Your task to perform on an android device: manage bookmarks in the chrome app Image 0: 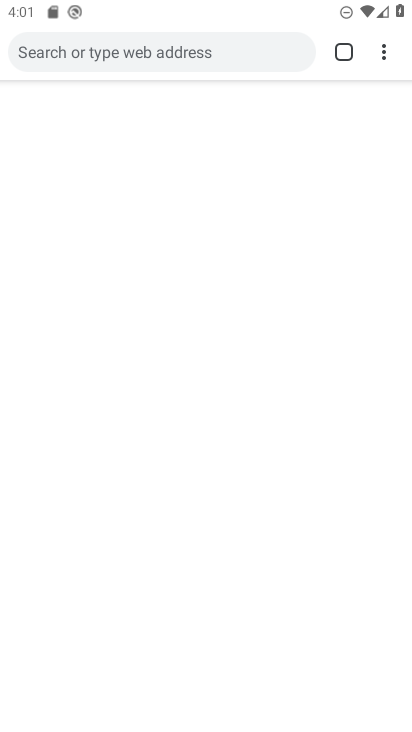
Step 0: drag from (263, 119) to (295, 158)
Your task to perform on an android device: manage bookmarks in the chrome app Image 1: 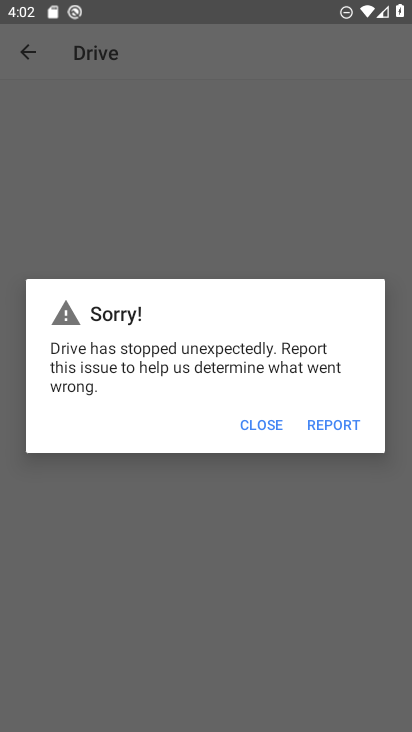
Step 1: press home button
Your task to perform on an android device: manage bookmarks in the chrome app Image 2: 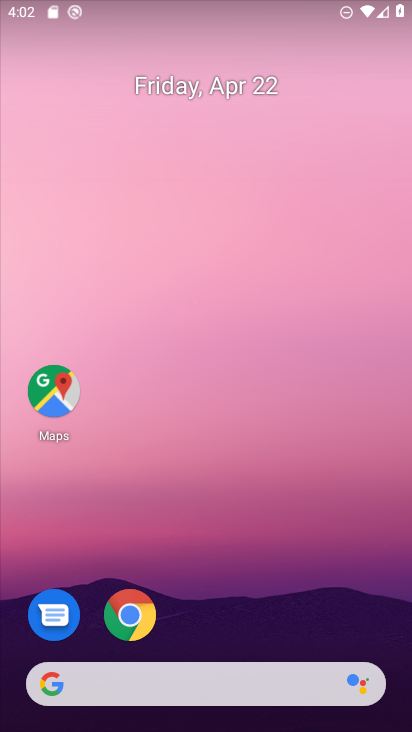
Step 2: drag from (275, 622) to (244, 102)
Your task to perform on an android device: manage bookmarks in the chrome app Image 3: 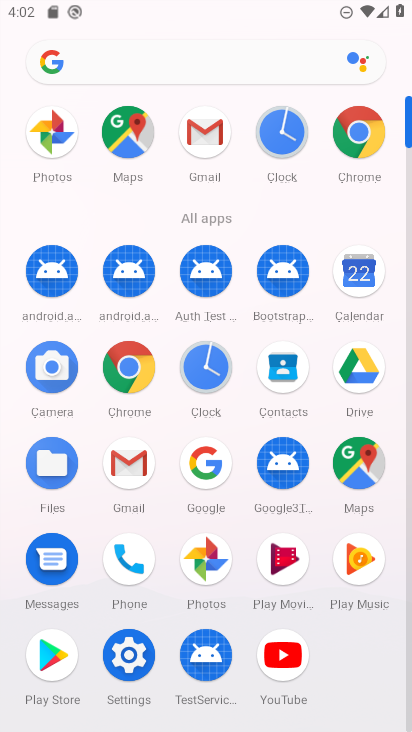
Step 3: click (132, 364)
Your task to perform on an android device: manage bookmarks in the chrome app Image 4: 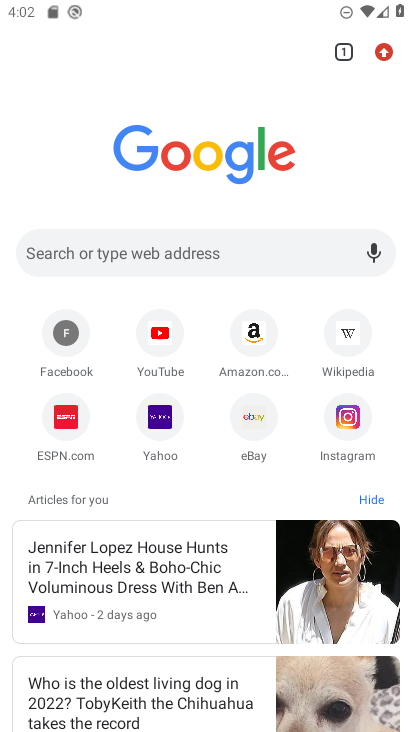
Step 4: task complete